Your task to perform on an android device: check google app version Image 0: 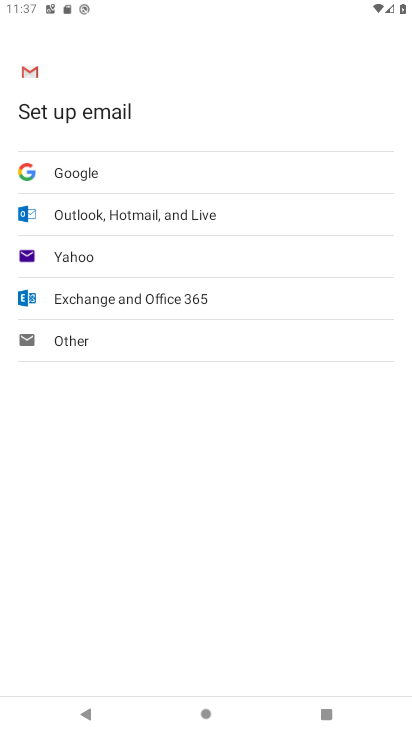
Step 0: press home button
Your task to perform on an android device: check google app version Image 1: 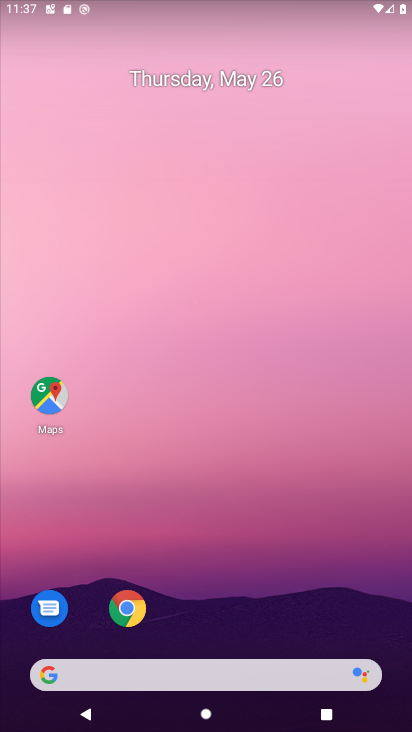
Step 1: drag from (395, 646) to (369, 286)
Your task to perform on an android device: check google app version Image 2: 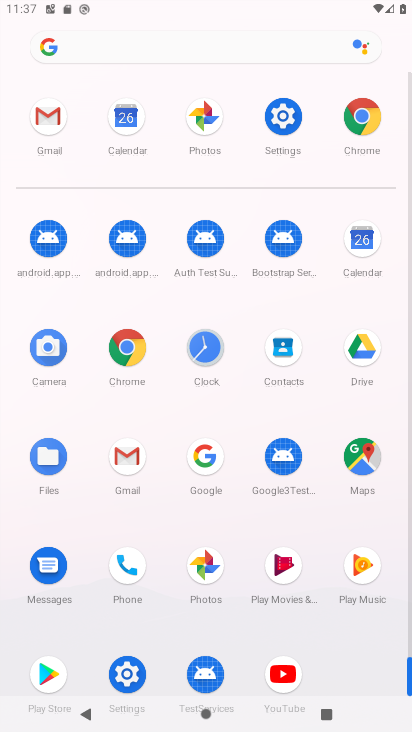
Step 2: click (193, 461)
Your task to perform on an android device: check google app version Image 3: 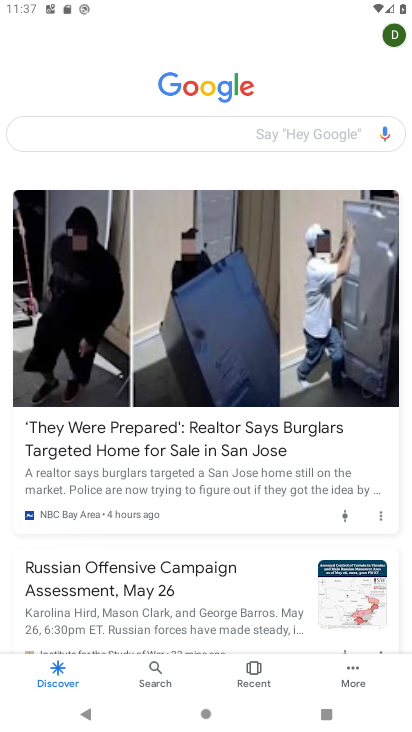
Step 3: click (348, 679)
Your task to perform on an android device: check google app version Image 4: 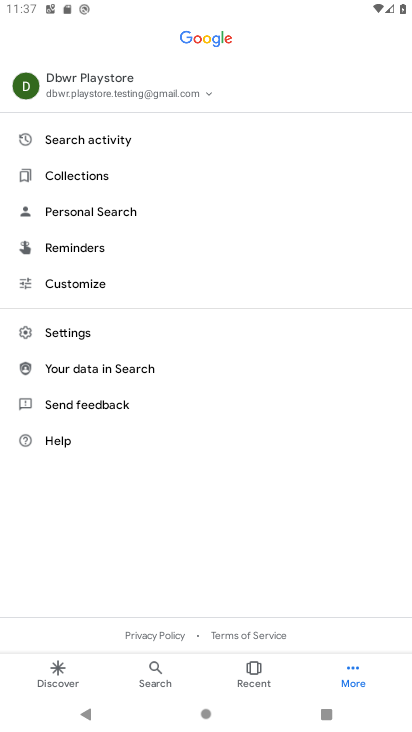
Step 4: click (59, 329)
Your task to perform on an android device: check google app version Image 5: 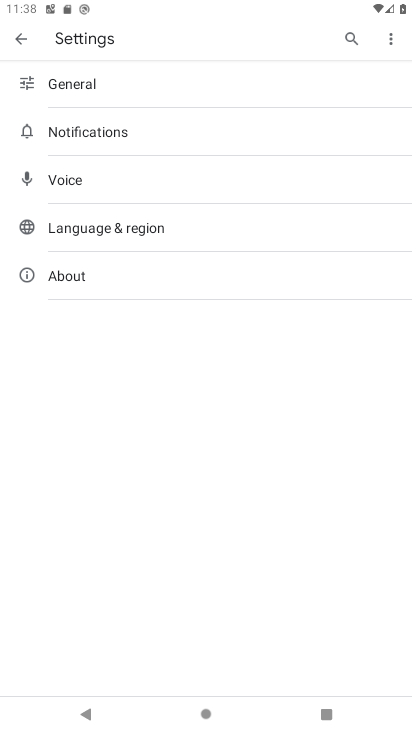
Step 5: press back button
Your task to perform on an android device: check google app version Image 6: 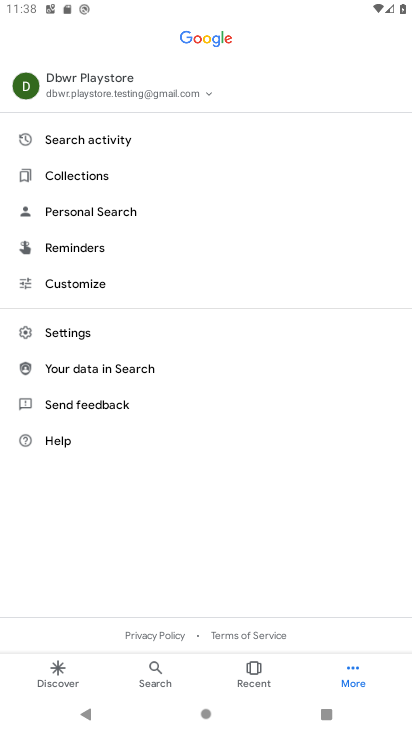
Step 6: click (61, 329)
Your task to perform on an android device: check google app version Image 7: 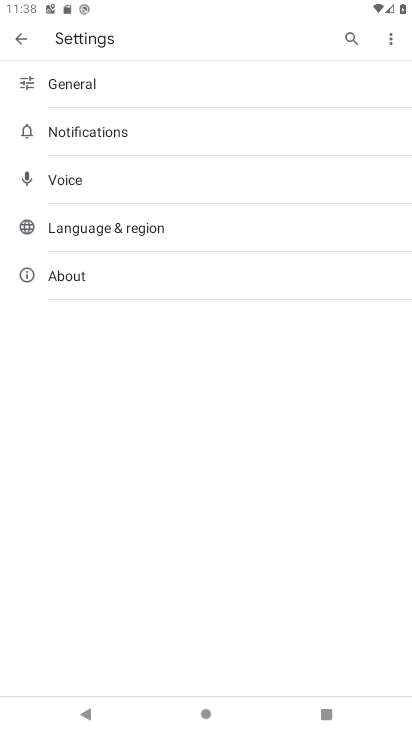
Step 7: click (67, 269)
Your task to perform on an android device: check google app version Image 8: 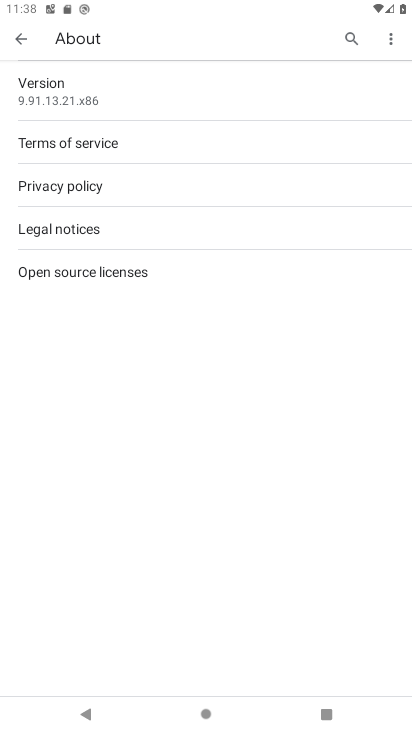
Step 8: click (67, 86)
Your task to perform on an android device: check google app version Image 9: 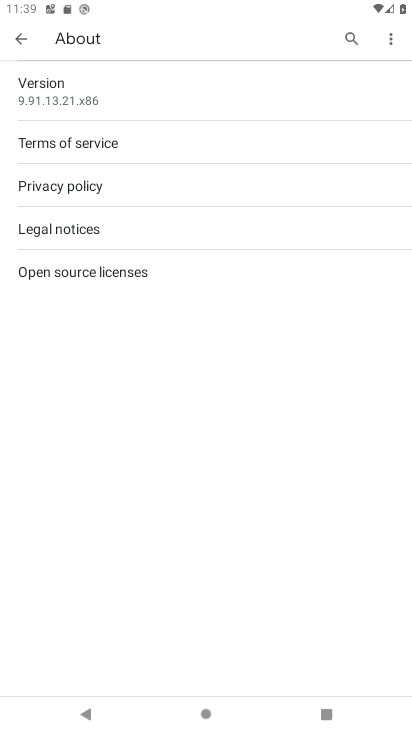
Step 9: task complete